Your task to perform on an android device: Open internet settings Image 0: 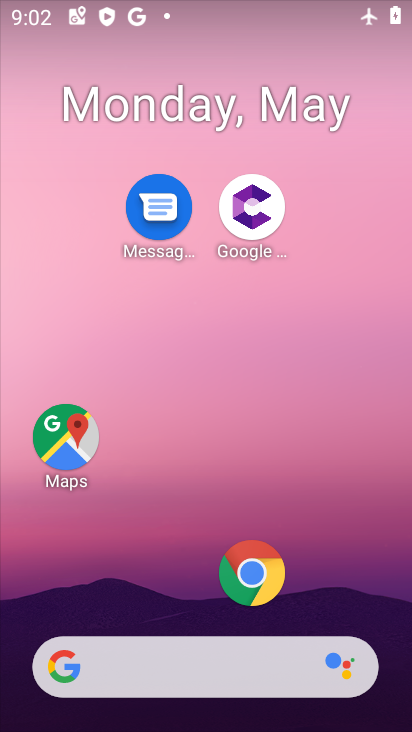
Step 0: drag from (208, 634) to (244, 90)
Your task to perform on an android device: Open internet settings Image 1: 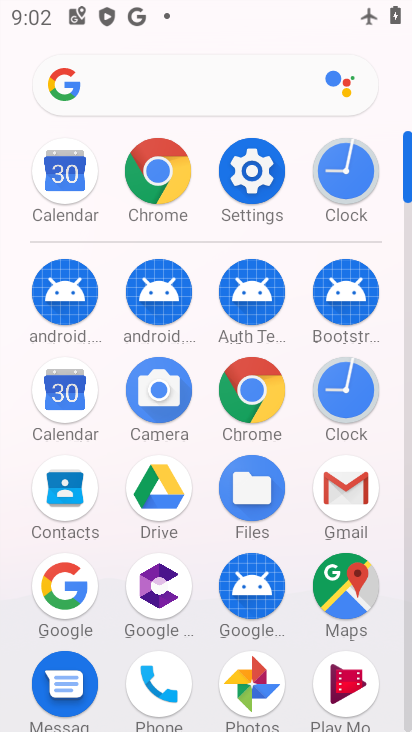
Step 1: click (263, 185)
Your task to perform on an android device: Open internet settings Image 2: 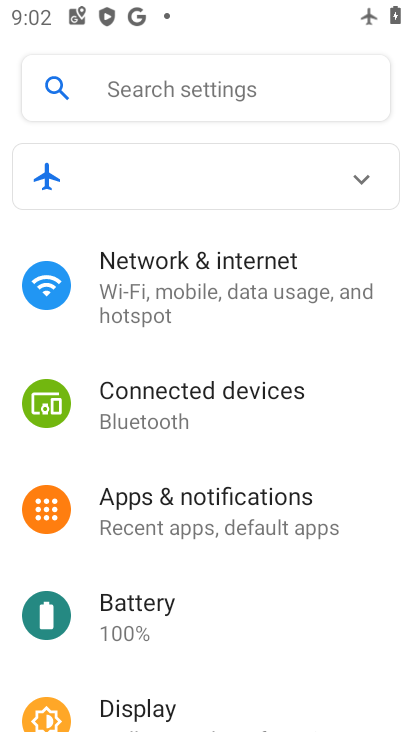
Step 2: click (222, 302)
Your task to perform on an android device: Open internet settings Image 3: 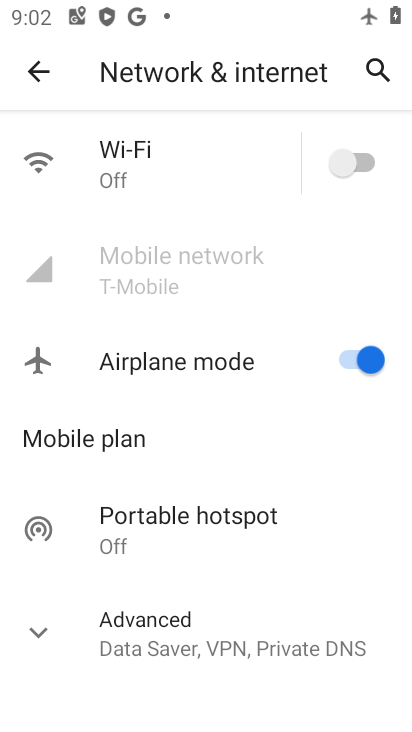
Step 3: click (137, 270)
Your task to perform on an android device: Open internet settings Image 4: 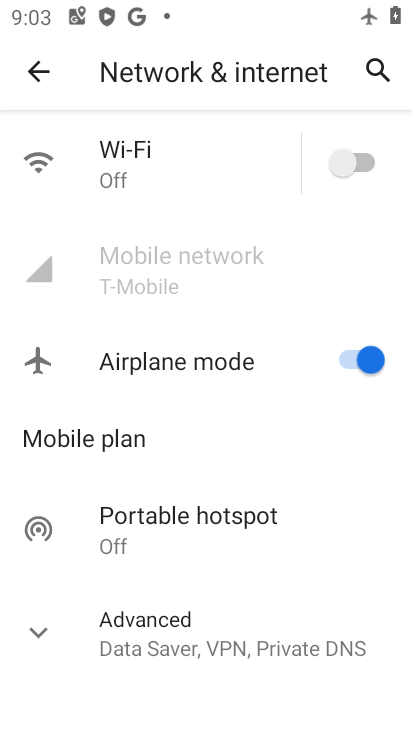
Step 4: task complete